Your task to perform on an android device: Go to Maps Image 0: 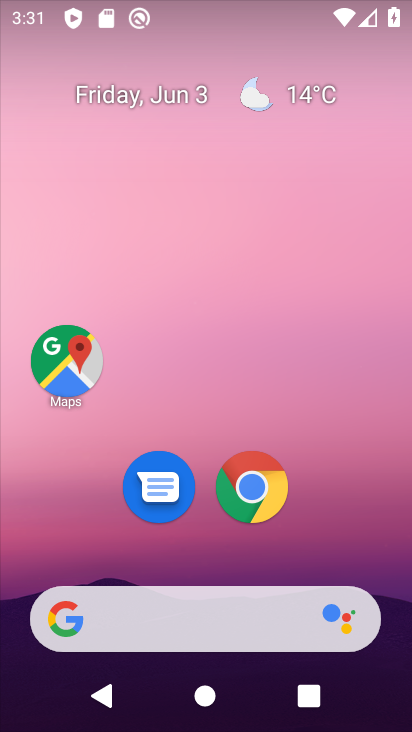
Step 0: click (54, 361)
Your task to perform on an android device: Go to Maps Image 1: 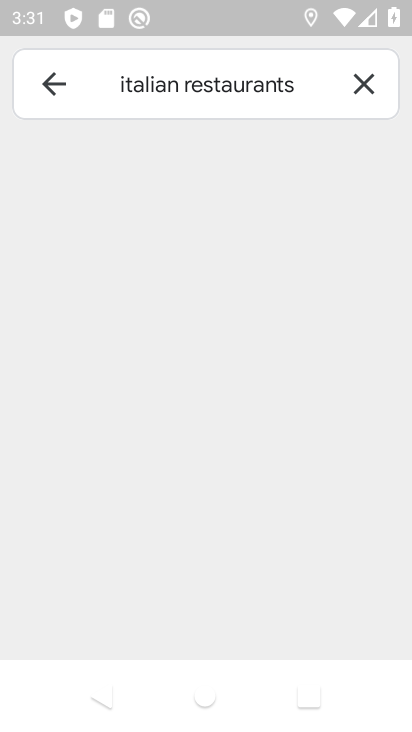
Step 1: task complete